Your task to perform on an android device: Go to internet settings Image 0: 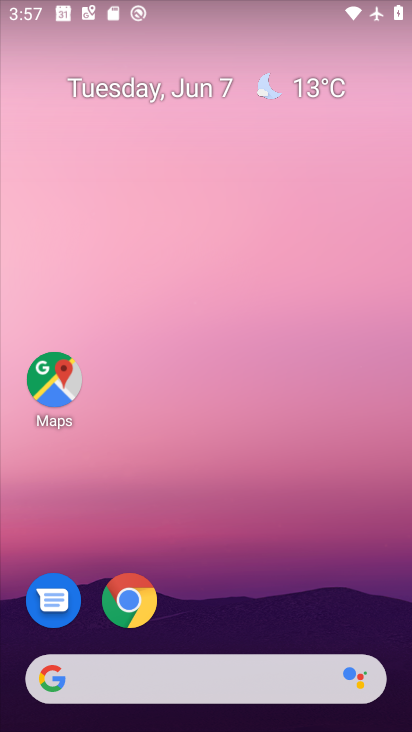
Step 0: drag from (258, 490) to (238, 170)
Your task to perform on an android device: Go to internet settings Image 1: 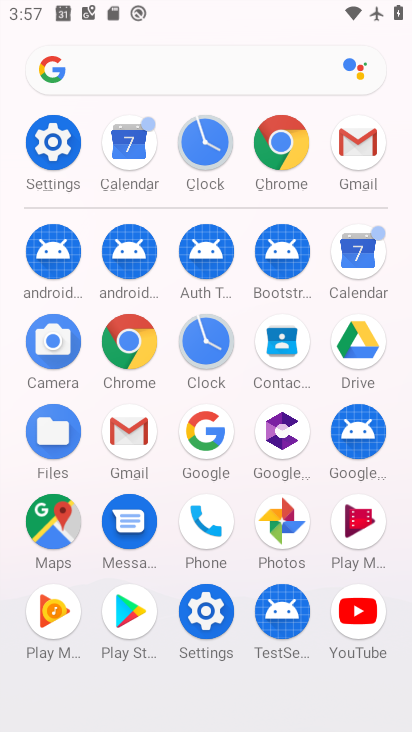
Step 1: click (61, 145)
Your task to perform on an android device: Go to internet settings Image 2: 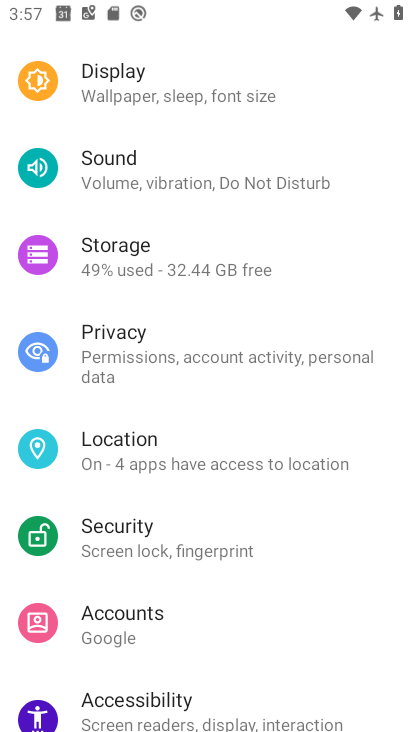
Step 2: drag from (175, 562) to (235, 72)
Your task to perform on an android device: Go to internet settings Image 3: 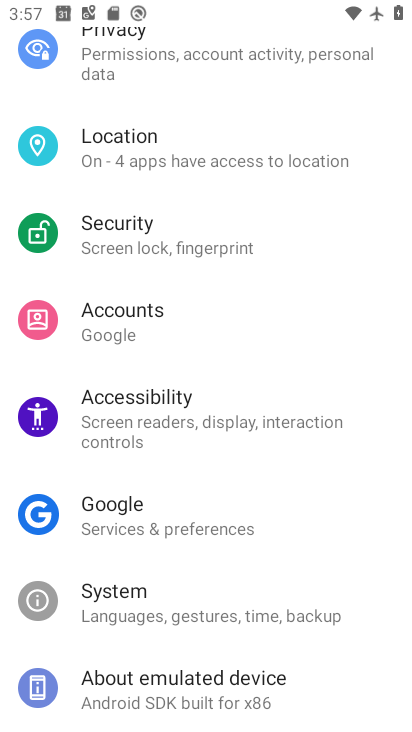
Step 3: drag from (230, 122) to (223, 576)
Your task to perform on an android device: Go to internet settings Image 4: 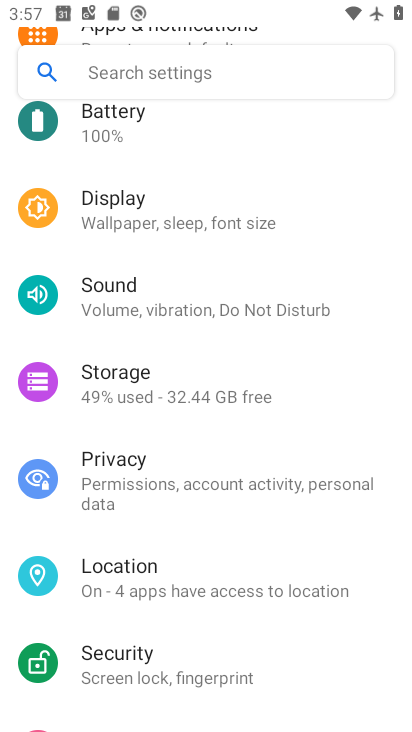
Step 4: drag from (264, 205) to (198, 559)
Your task to perform on an android device: Go to internet settings Image 5: 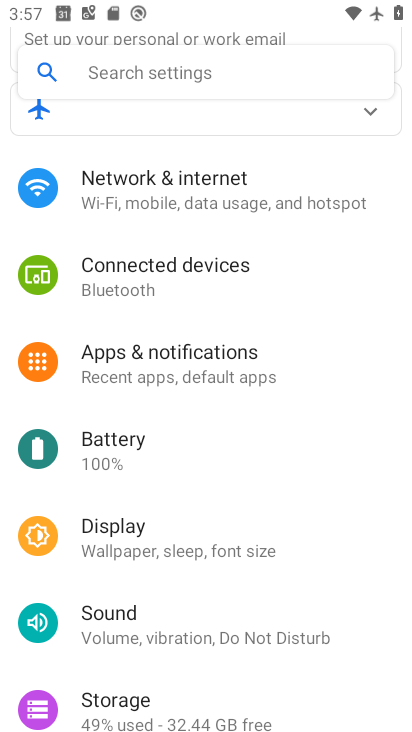
Step 5: click (176, 186)
Your task to perform on an android device: Go to internet settings Image 6: 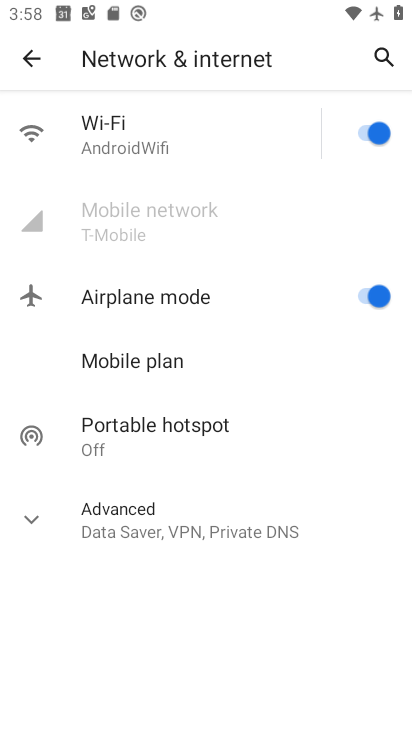
Step 6: click (172, 528)
Your task to perform on an android device: Go to internet settings Image 7: 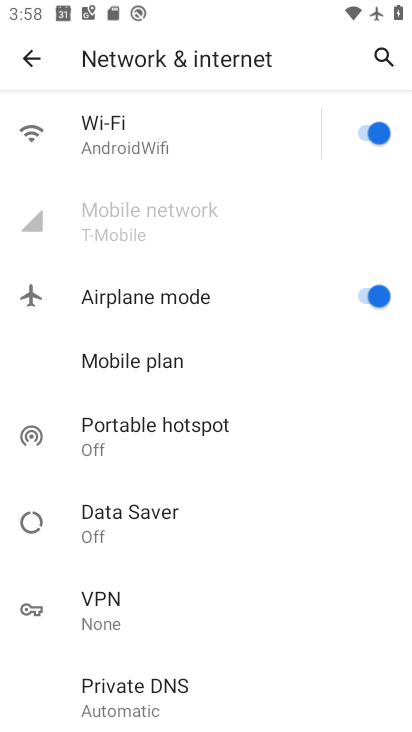
Step 7: task complete